Your task to perform on an android device: manage bookmarks in the chrome app Image 0: 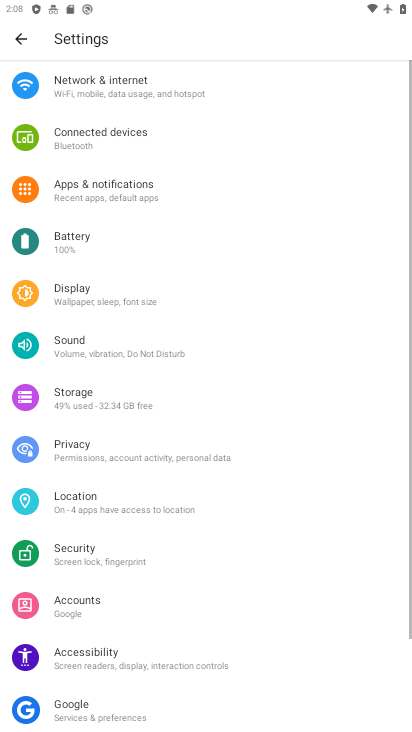
Step 0: press home button
Your task to perform on an android device: manage bookmarks in the chrome app Image 1: 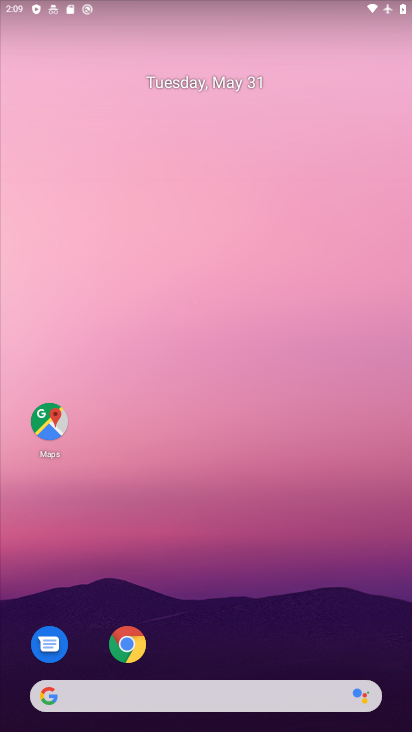
Step 1: click (127, 641)
Your task to perform on an android device: manage bookmarks in the chrome app Image 2: 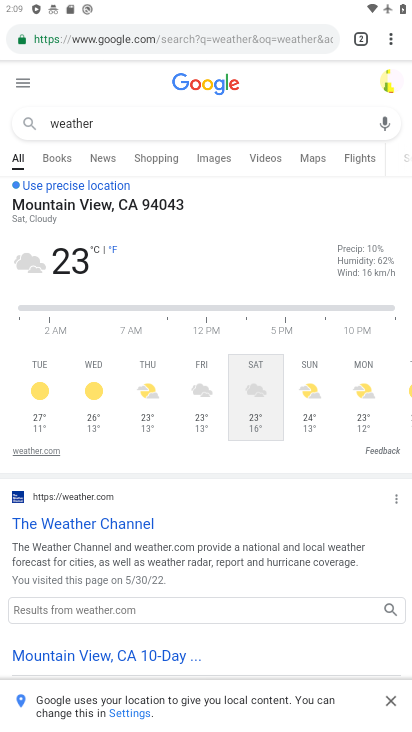
Step 2: click (392, 38)
Your task to perform on an android device: manage bookmarks in the chrome app Image 3: 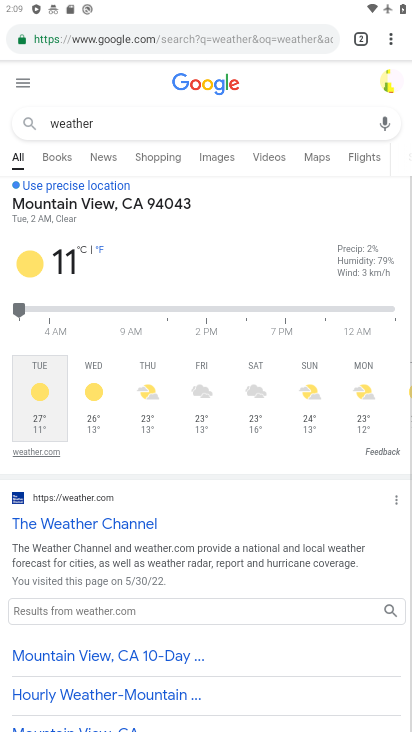
Step 3: task complete